Your task to perform on an android device: Open ESPN.com Image 0: 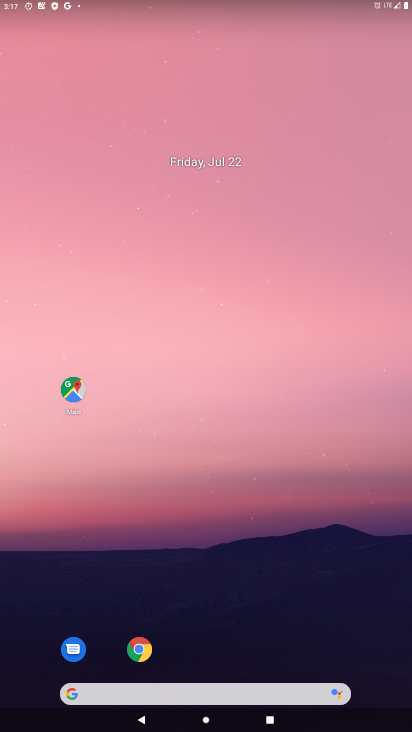
Step 0: drag from (318, 608) to (287, 77)
Your task to perform on an android device: Open ESPN.com Image 1: 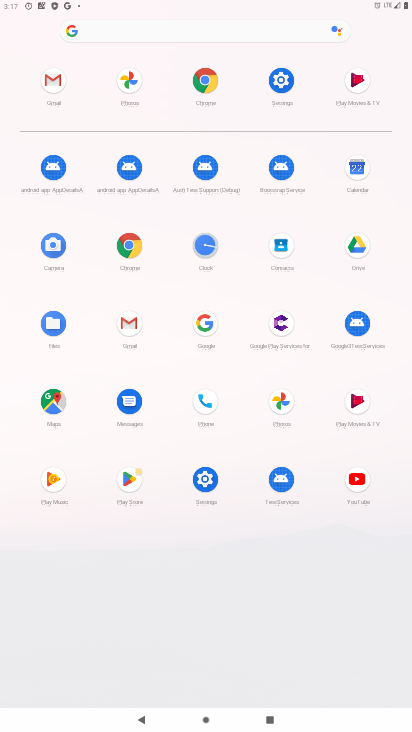
Step 1: click (125, 246)
Your task to perform on an android device: Open ESPN.com Image 2: 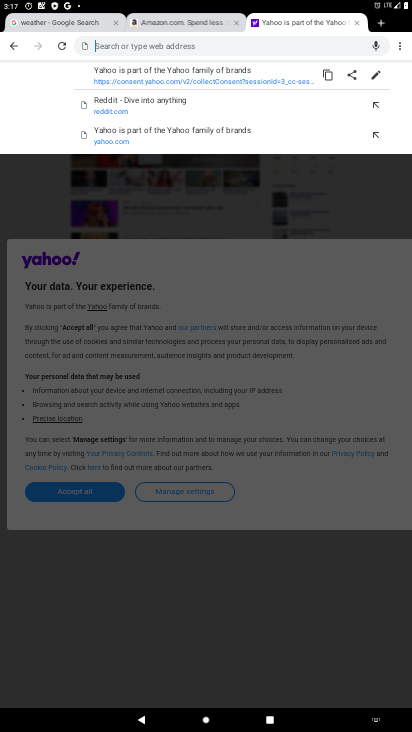
Step 2: type "espn.com"
Your task to perform on an android device: Open ESPN.com Image 3: 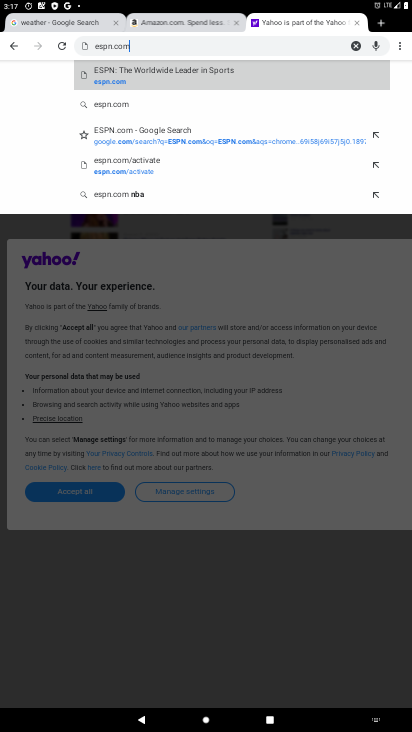
Step 3: click (132, 77)
Your task to perform on an android device: Open ESPN.com Image 4: 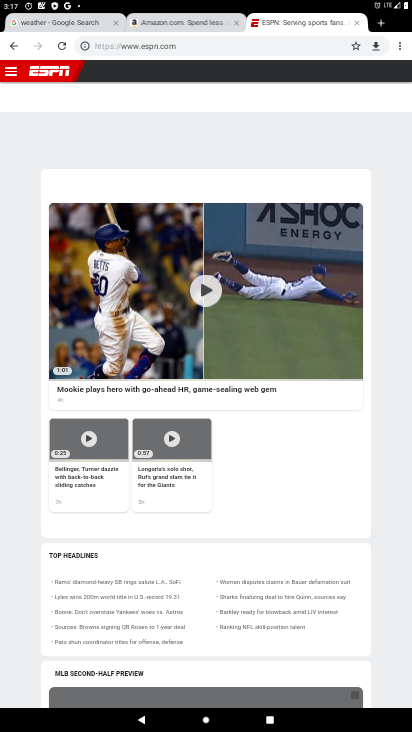
Step 4: task complete